Your task to perform on an android device: Open eBay Image 0: 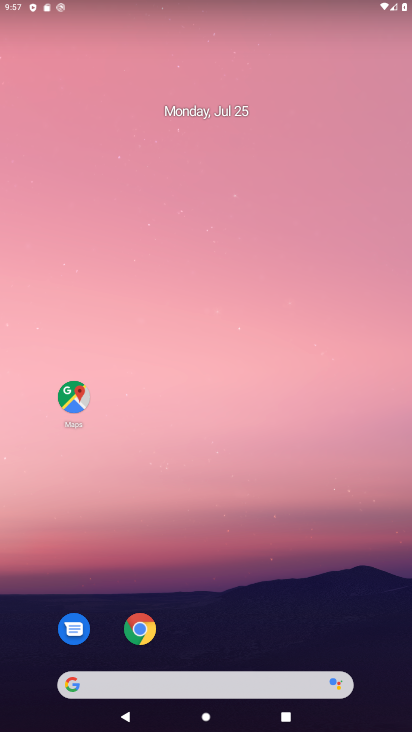
Step 0: drag from (279, 608) to (186, 133)
Your task to perform on an android device: Open eBay Image 1: 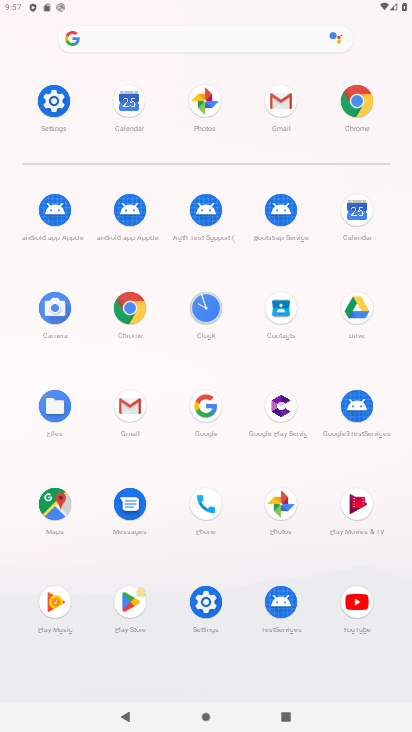
Step 1: click (356, 97)
Your task to perform on an android device: Open eBay Image 2: 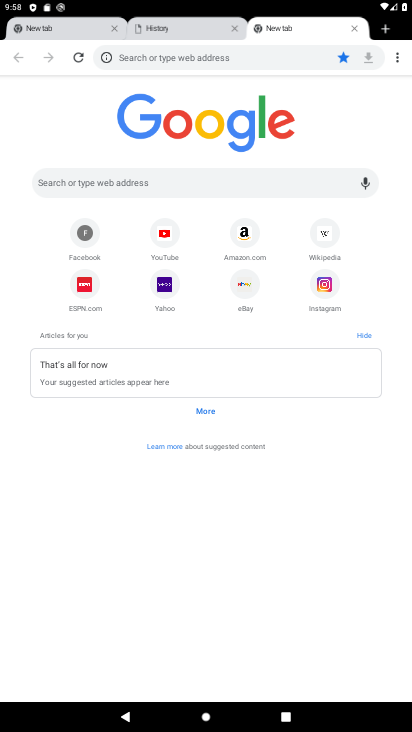
Step 2: click (307, 59)
Your task to perform on an android device: Open eBay Image 3: 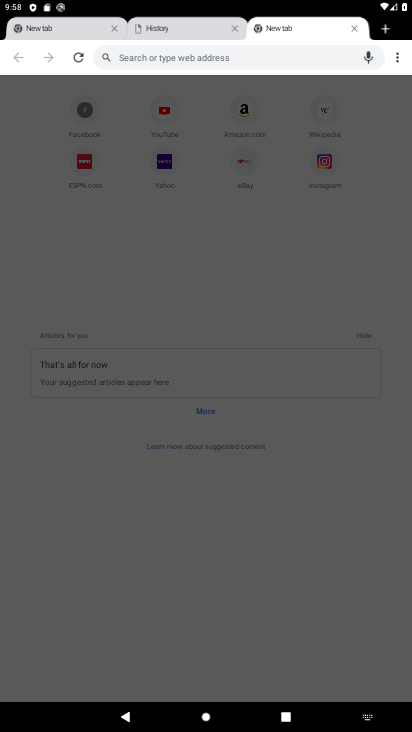
Step 3: type "ebay"
Your task to perform on an android device: Open eBay Image 4: 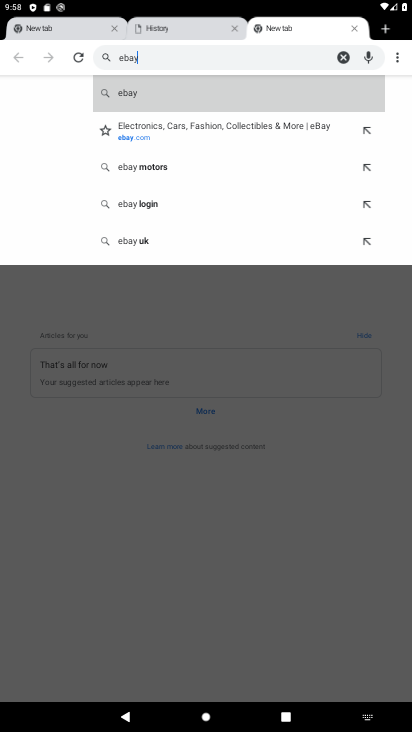
Step 4: click (135, 138)
Your task to perform on an android device: Open eBay Image 5: 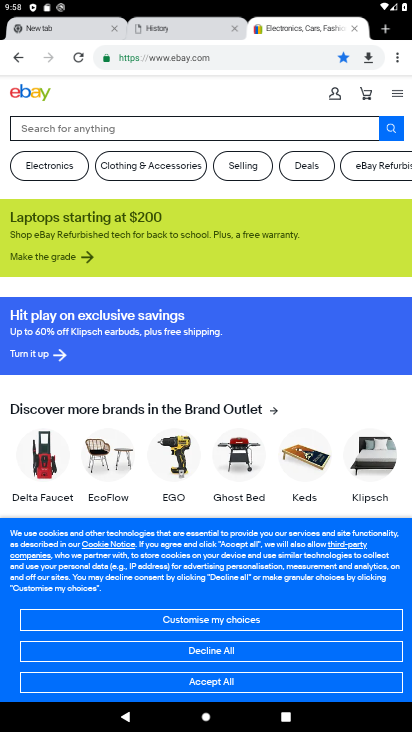
Step 5: task complete